Your task to perform on an android device: What's on my calendar tomorrow? Image 0: 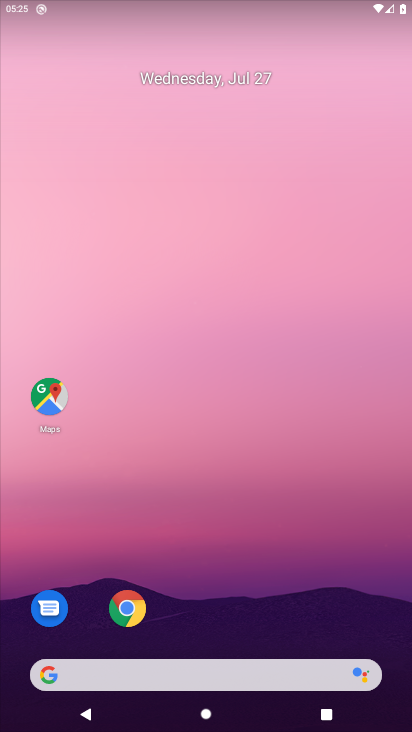
Step 0: press home button
Your task to perform on an android device: What's on my calendar tomorrow? Image 1: 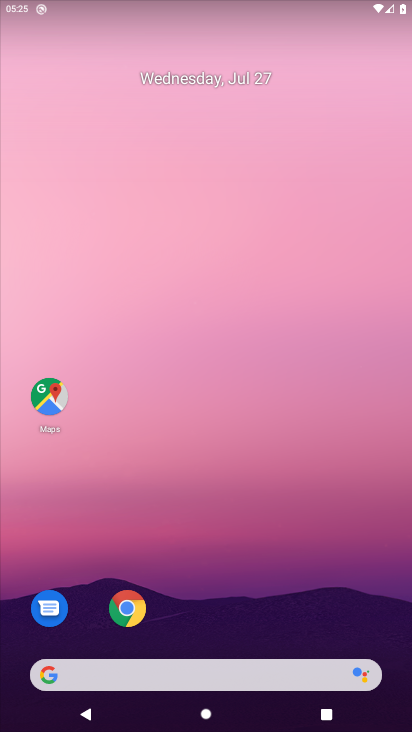
Step 1: drag from (273, 626) to (271, 195)
Your task to perform on an android device: What's on my calendar tomorrow? Image 2: 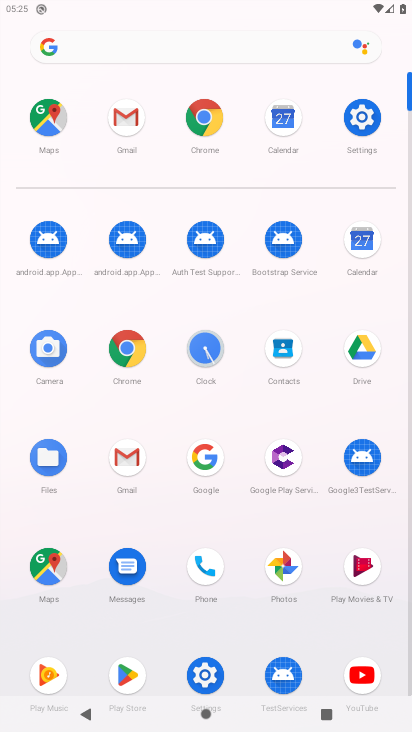
Step 2: click (363, 243)
Your task to perform on an android device: What's on my calendar tomorrow? Image 3: 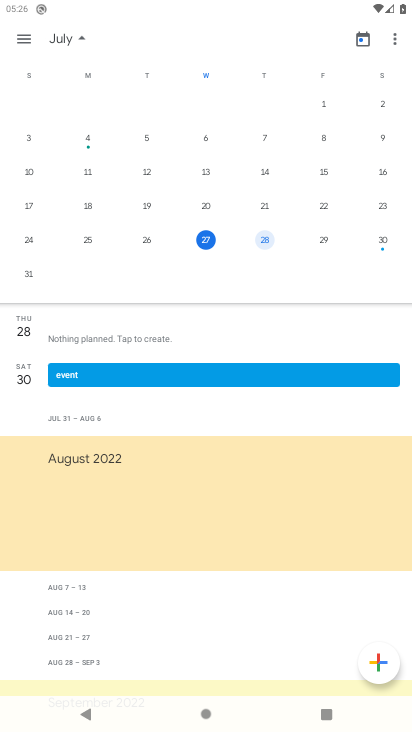
Step 3: click (262, 239)
Your task to perform on an android device: What's on my calendar tomorrow? Image 4: 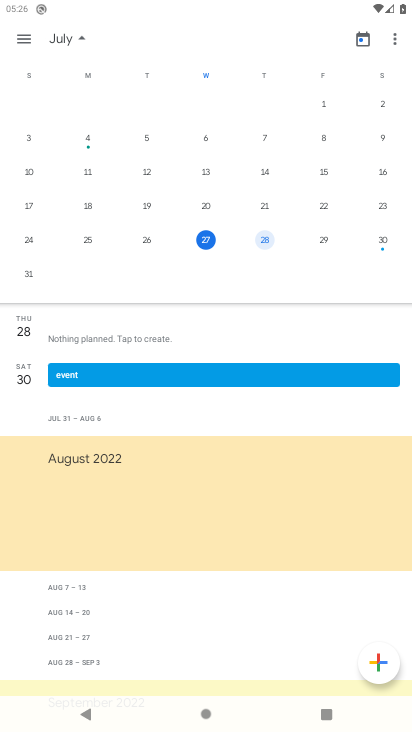
Step 4: click (268, 241)
Your task to perform on an android device: What's on my calendar tomorrow? Image 5: 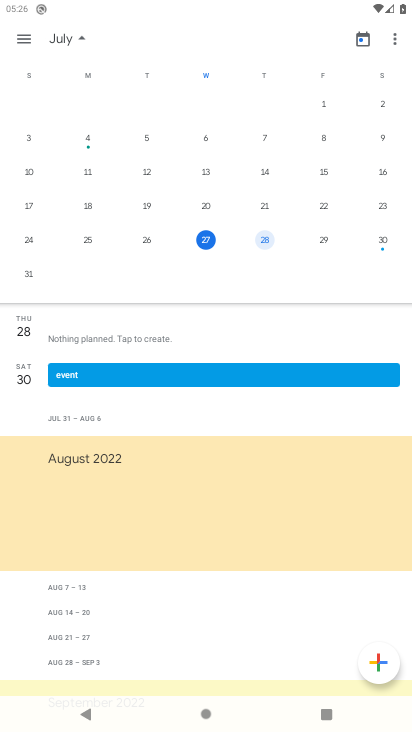
Step 5: task complete